Your task to perform on an android device: Go to Wikipedia Image 0: 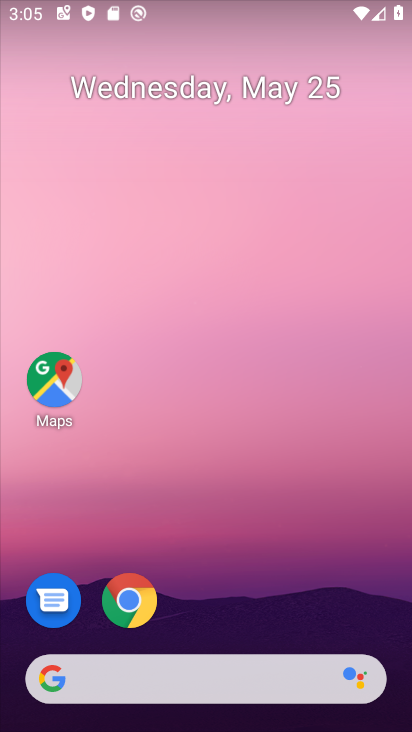
Step 0: press home button
Your task to perform on an android device: Go to Wikipedia Image 1: 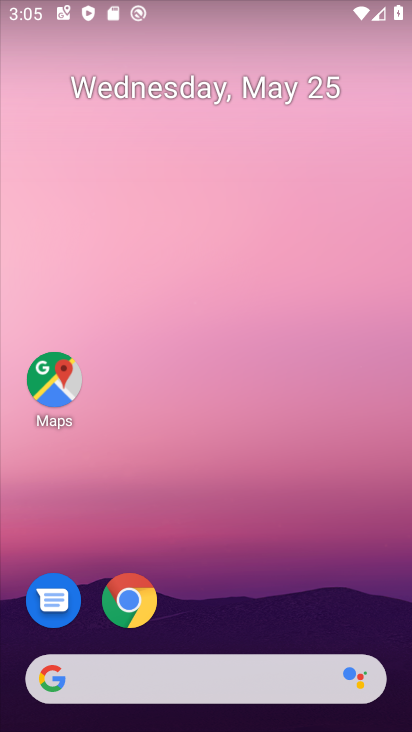
Step 1: click (130, 604)
Your task to perform on an android device: Go to Wikipedia Image 2: 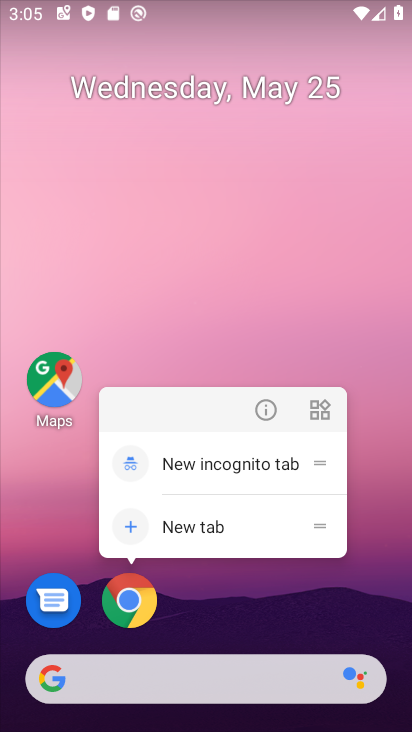
Step 2: click (120, 594)
Your task to perform on an android device: Go to Wikipedia Image 3: 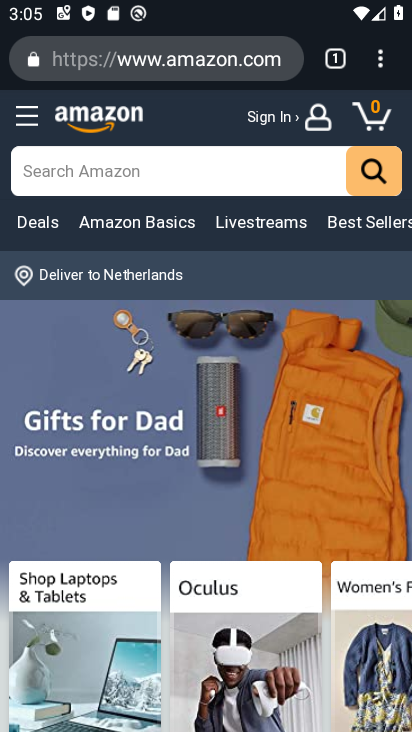
Step 3: click (334, 64)
Your task to perform on an android device: Go to Wikipedia Image 4: 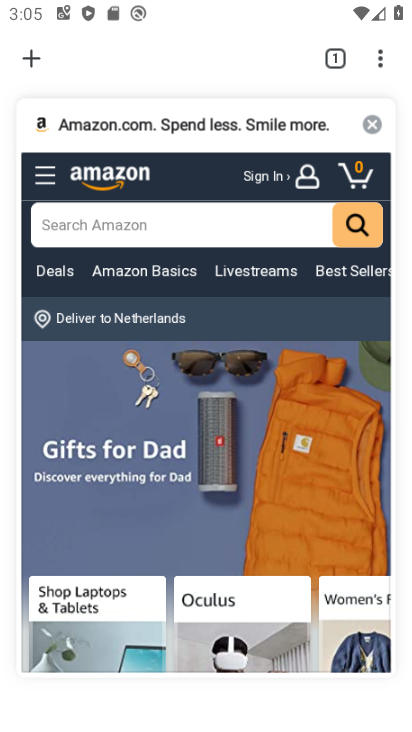
Step 4: click (372, 127)
Your task to perform on an android device: Go to Wikipedia Image 5: 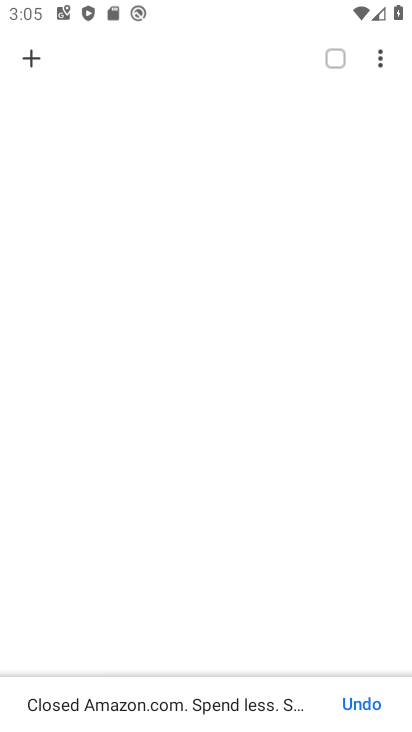
Step 5: click (41, 63)
Your task to perform on an android device: Go to Wikipedia Image 6: 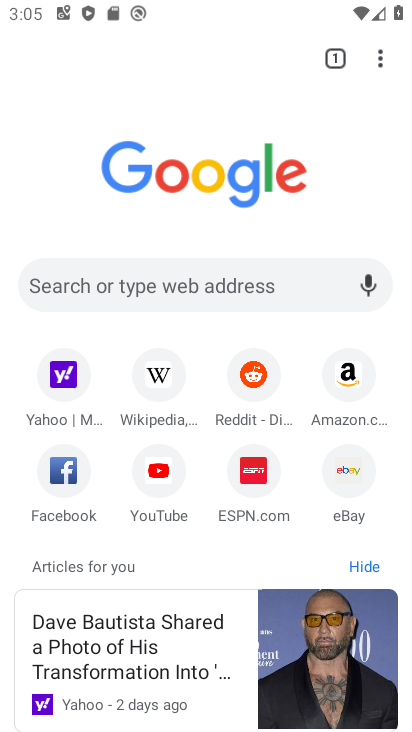
Step 6: click (154, 374)
Your task to perform on an android device: Go to Wikipedia Image 7: 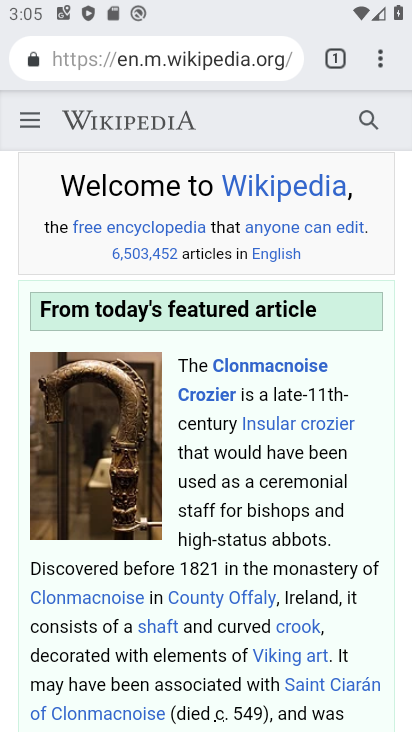
Step 7: task complete